Your task to perform on an android device: toggle improve location accuracy Image 0: 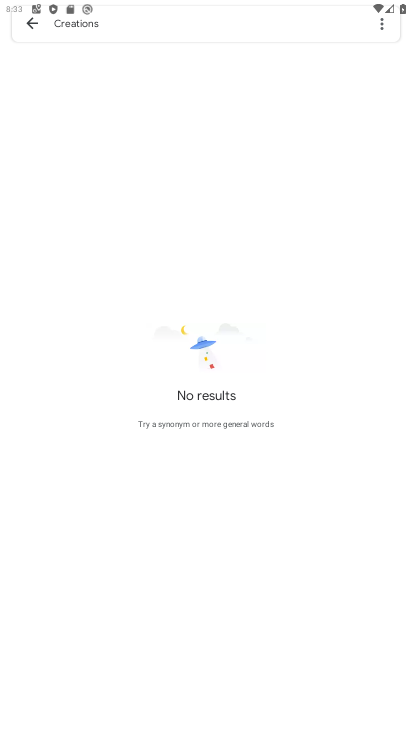
Step 0: press home button
Your task to perform on an android device: toggle improve location accuracy Image 1: 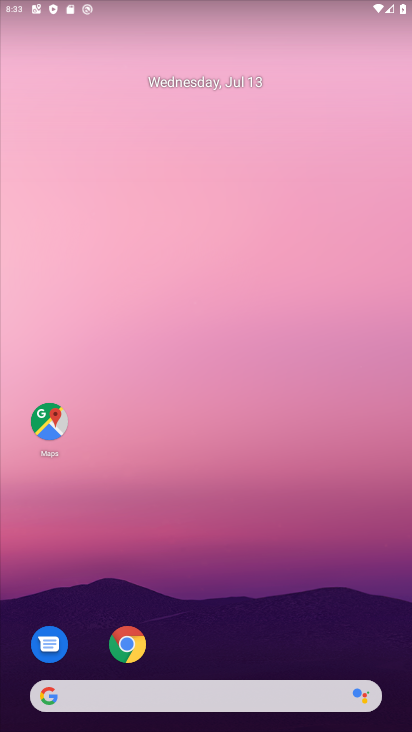
Step 1: drag from (242, 721) to (242, 75)
Your task to perform on an android device: toggle improve location accuracy Image 2: 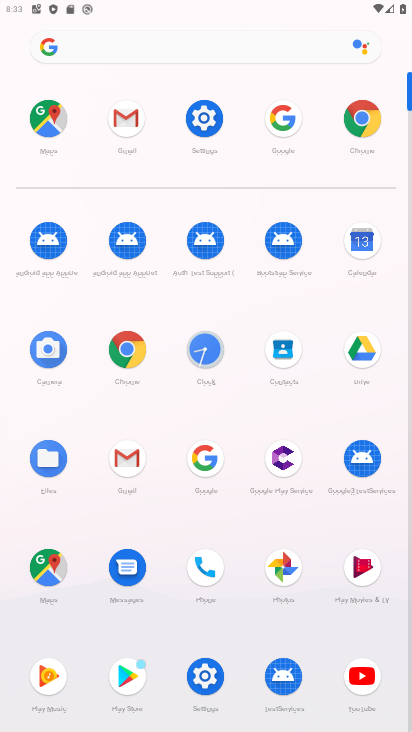
Step 2: click (205, 119)
Your task to perform on an android device: toggle improve location accuracy Image 3: 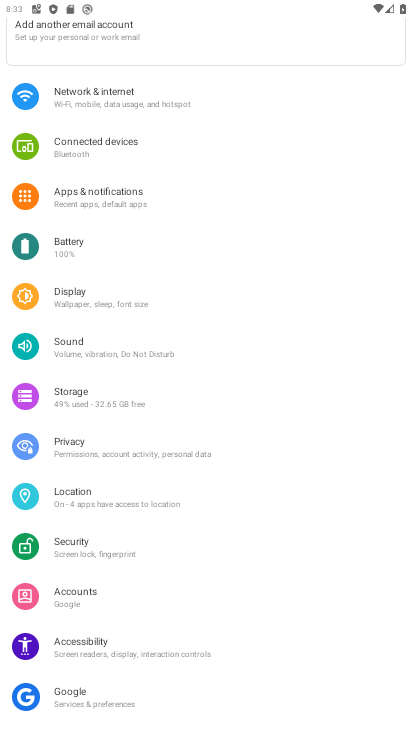
Step 3: click (69, 493)
Your task to perform on an android device: toggle improve location accuracy Image 4: 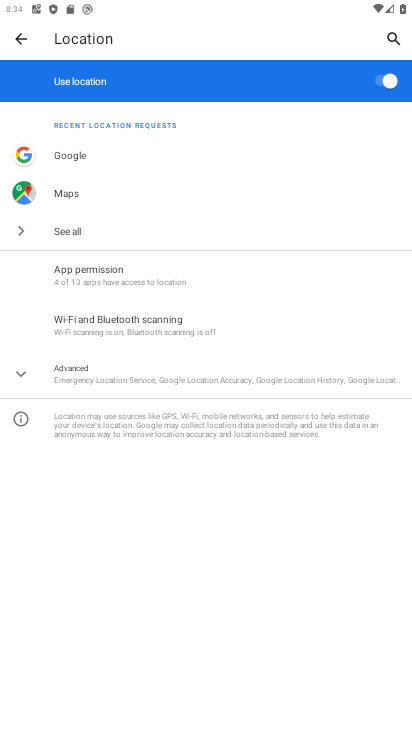
Step 4: click (101, 377)
Your task to perform on an android device: toggle improve location accuracy Image 5: 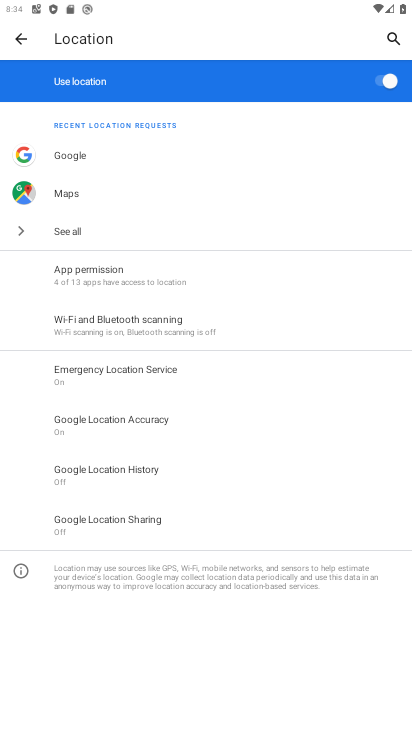
Step 5: click (133, 418)
Your task to perform on an android device: toggle improve location accuracy Image 6: 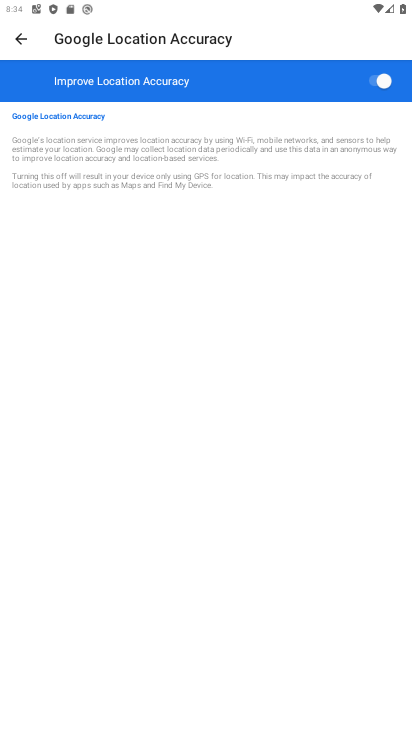
Step 6: click (380, 81)
Your task to perform on an android device: toggle improve location accuracy Image 7: 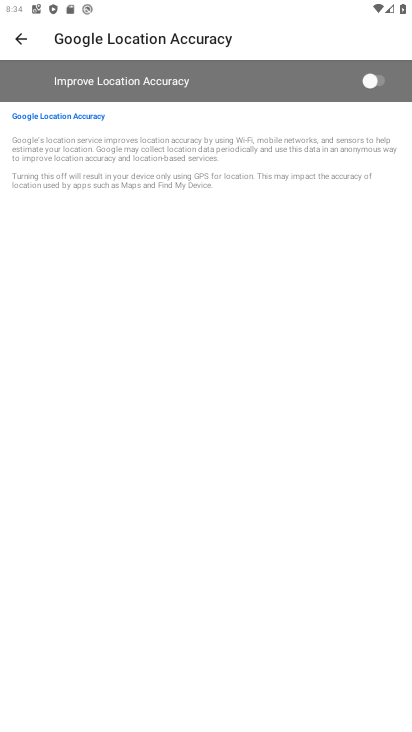
Step 7: task complete